Your task to perform on an android device: Is it going to rain tomorrow? Image 0: 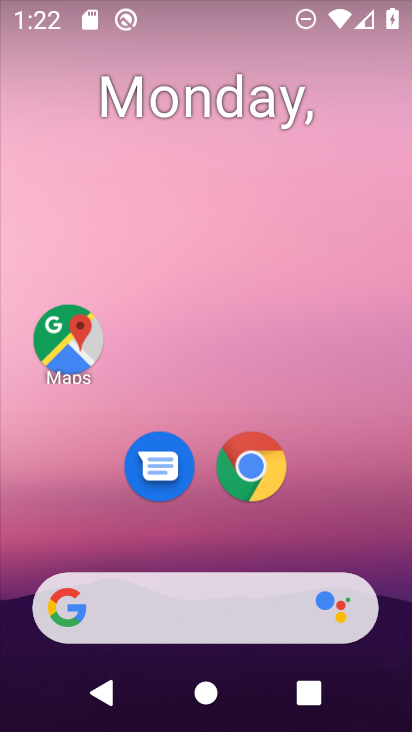
Step 0: drag from (223, 563) to (240, 92)
Your task to perform on an android device: Is it going to rain tomorrow? Image 1: 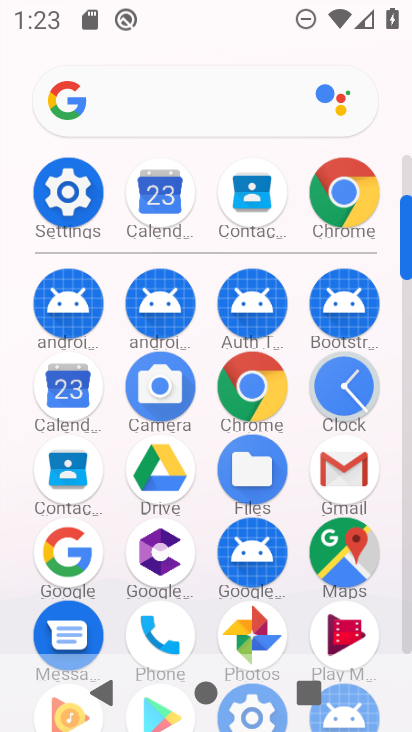
Step 1: click (209, 101)
Your task to perform on an android device: Is it going to rain tomorrow? Image 2: 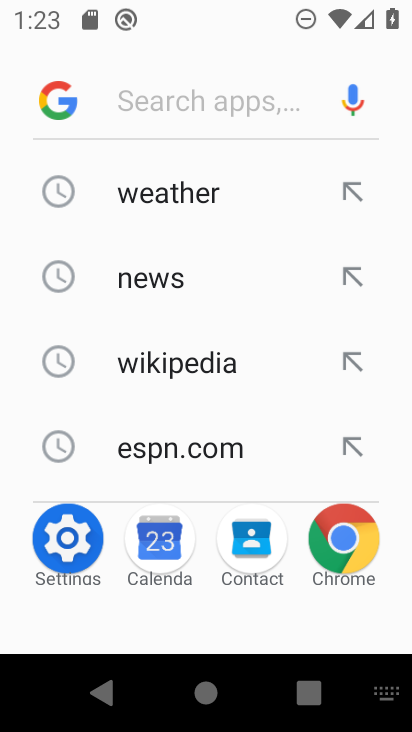
Step 2: click (161, 199)
Your task to perform on an android device: Is it going to rain tomorrow? Image 3: 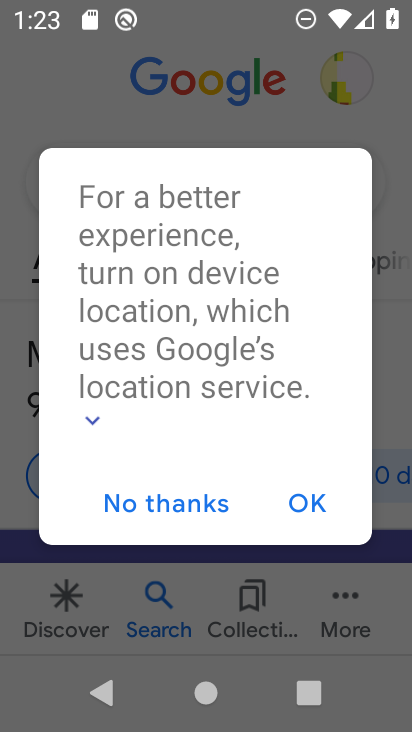
Step 3: click (311, 511)
Your task to perform on an android device: Is it going to rain tomorrow? Image 4: 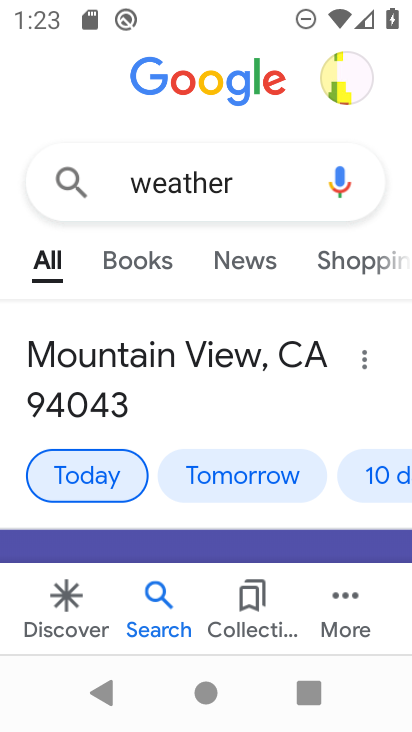
Step 4: drag from (191, 471) to (226, 241)
Your task to perform on an android device: Is it going to rain tomorrow? Image 5: 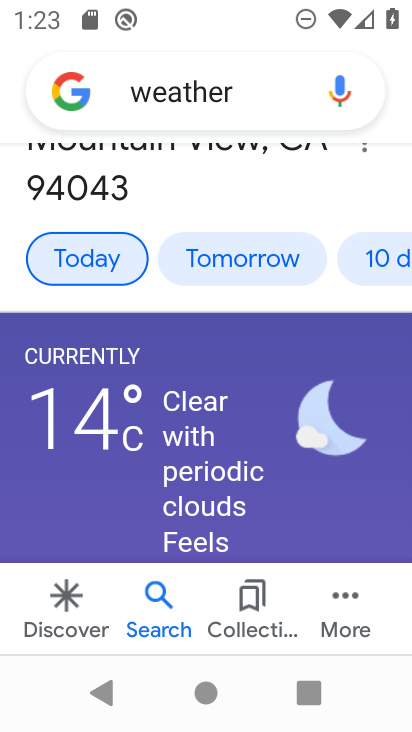
Step 5: click (226, 246)
Your task to perform on an android device: Is it going to rain tomorrow? Image 6: 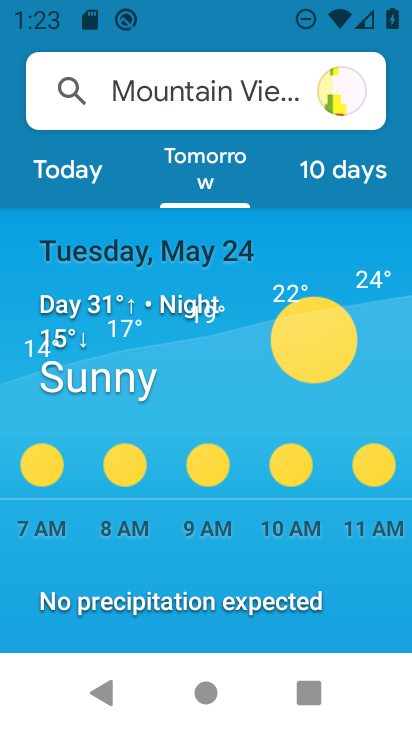
Step 6: task complete